Your task to perform on an android device: Go to Google maps Image 0: 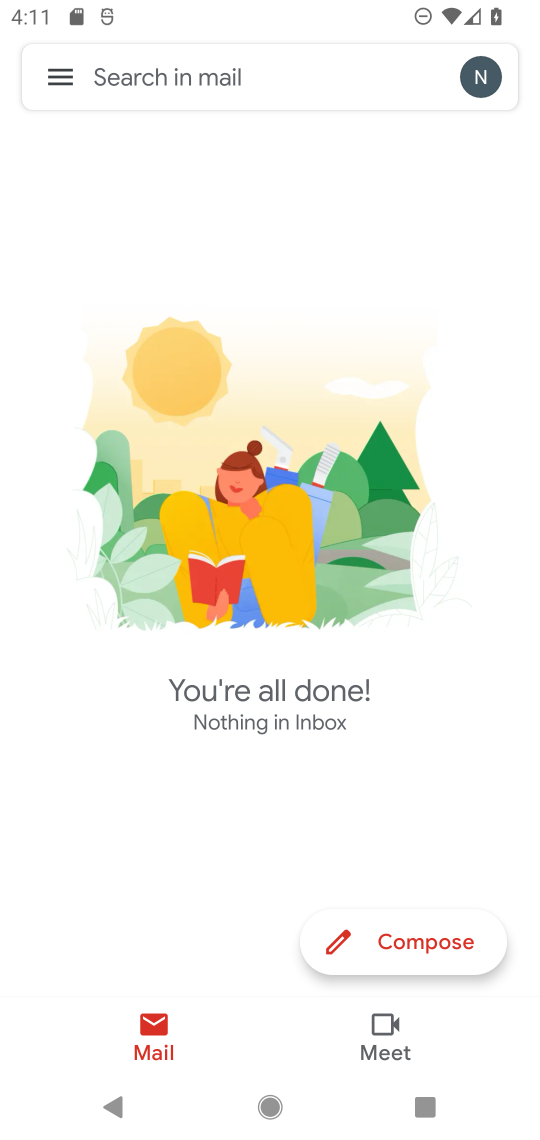
Step 0: press home button
Your task to perform on an android device: Go to Google maps Image 1: 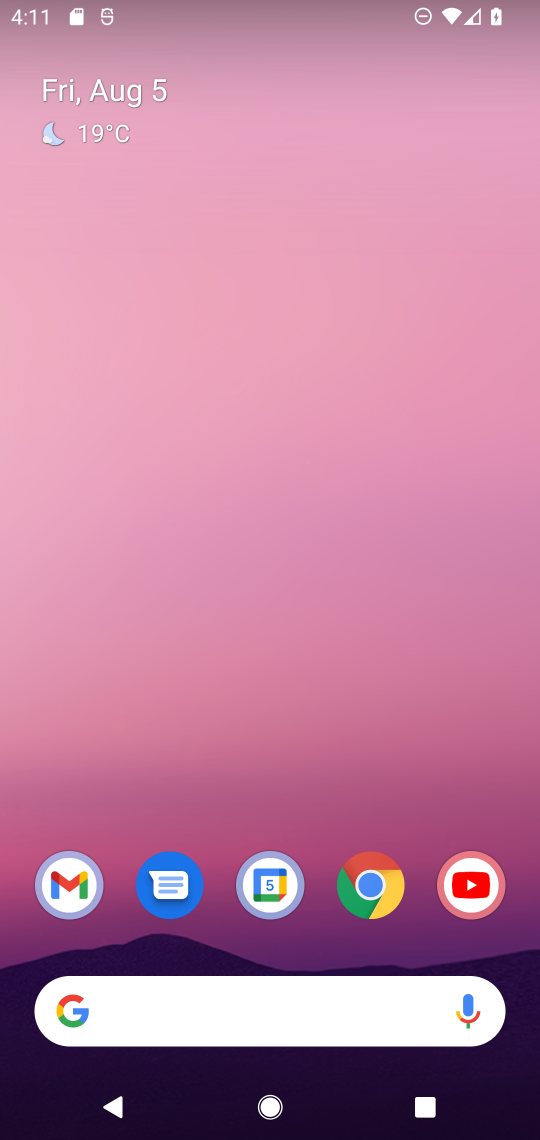
Step 1: drag from (326, 941) to (326, 122)
Your task to perform on an android device: Go to Google maps Image 2: 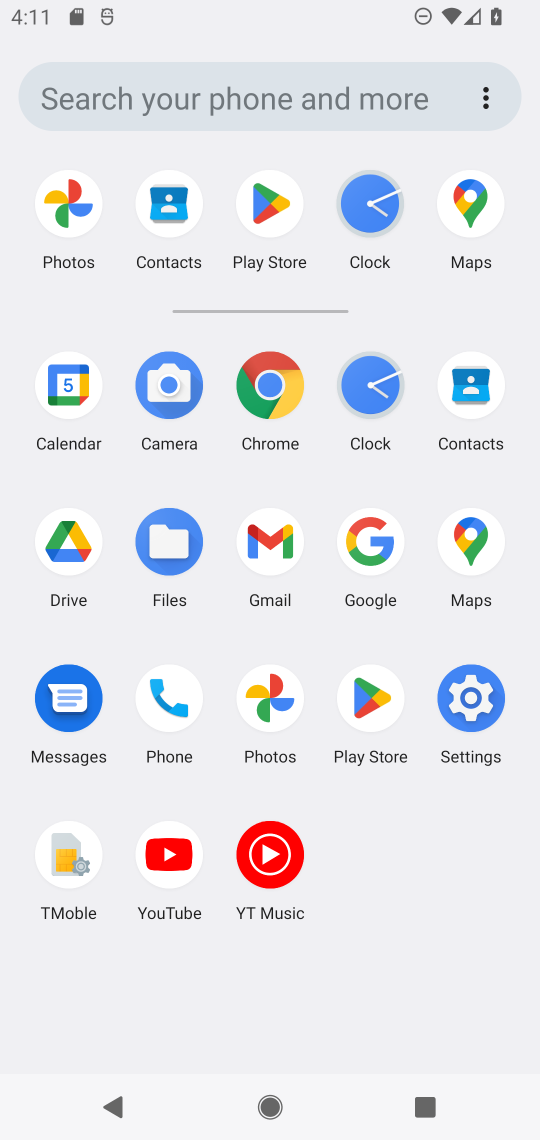
Step 2: click (471, 544)
Your task to perform on an android device: Go to Google maps Image 3: 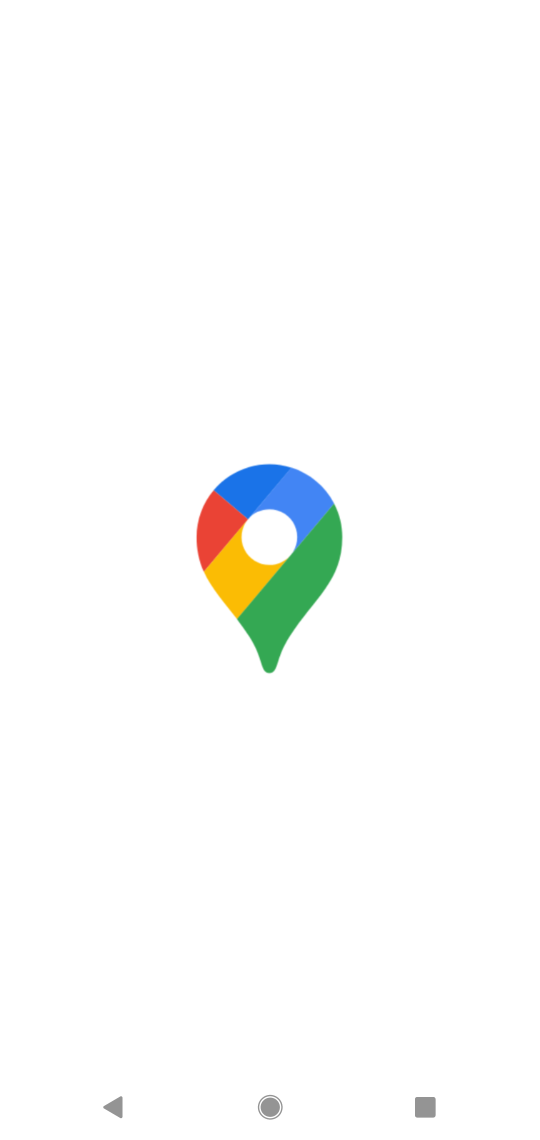
Step 3: task complete